Your task to perform on an android device: Open internet settings Image 0: 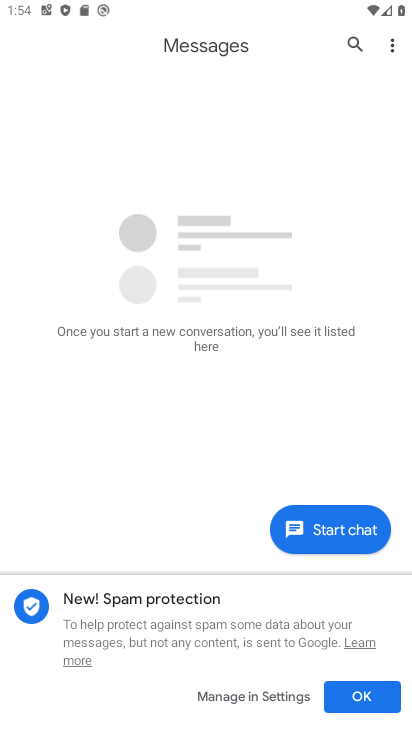
Step 0: press home button
Your task to perform on an android device: Open internet settings Image 1: 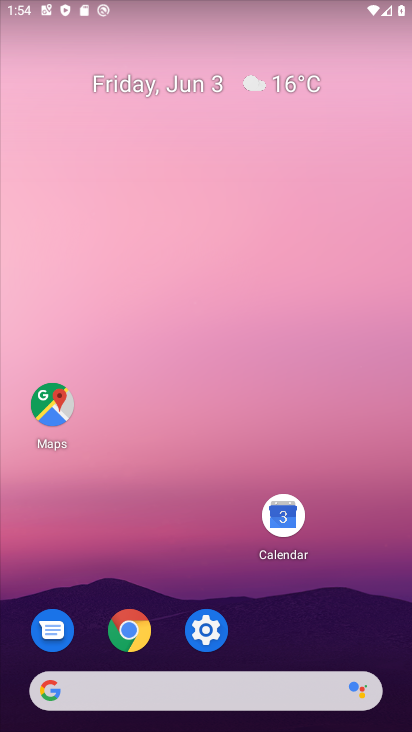
Step 1: drag from (201, 714) to (204, 280)
Your task to perform on an android device: Open internet settings Image 2: 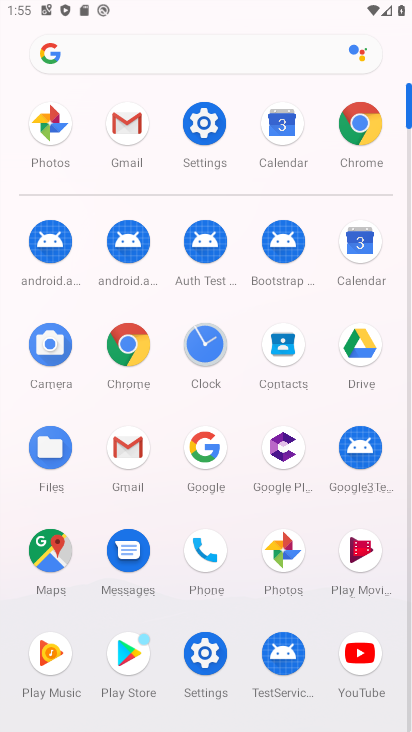
Step 2: click (213, 645)
Your task to perform on an android device: Open internet settings Image 3: 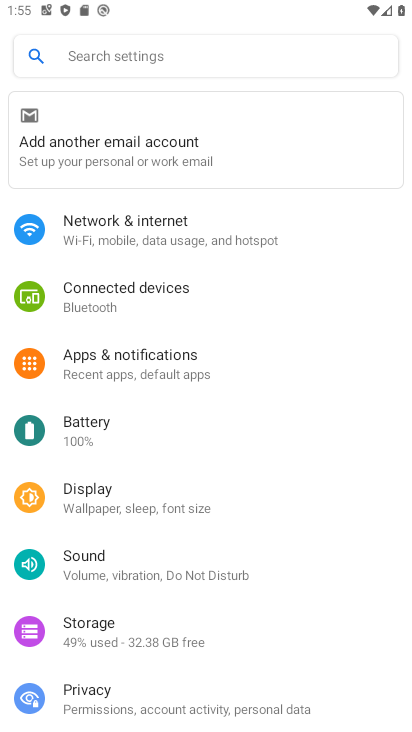
Step 3: click (136, 237)
Your task to perform on an android device: Open internet settings Image 4: 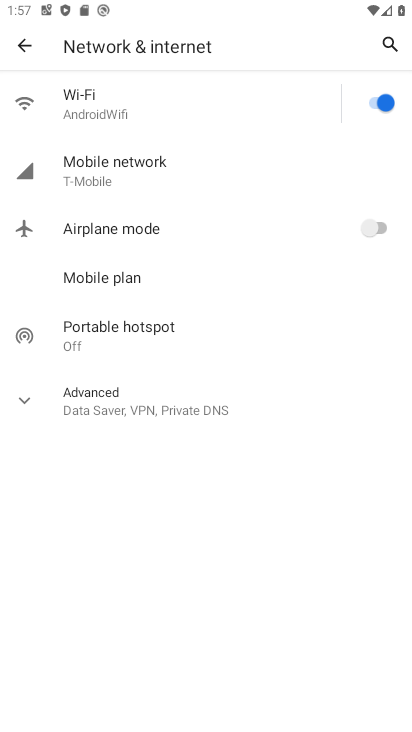
Step 4: task complete